Your task to perform on an android device: allow notifications from all sites in the chrome app Image 0: 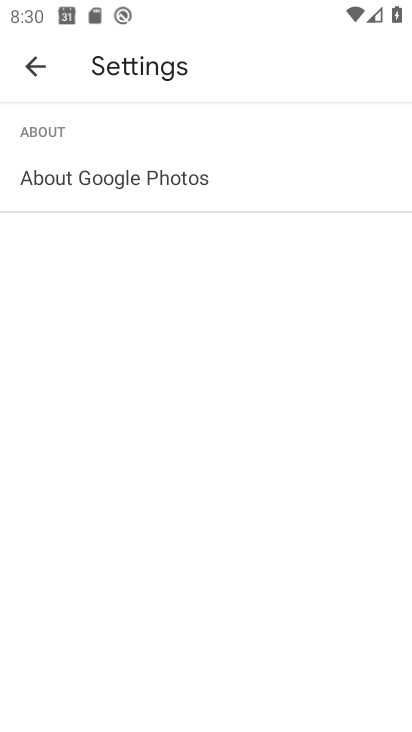
Step 0: press home button
Your task to perform on an android device: allow notifications from all sites in the chrome app Image 1: 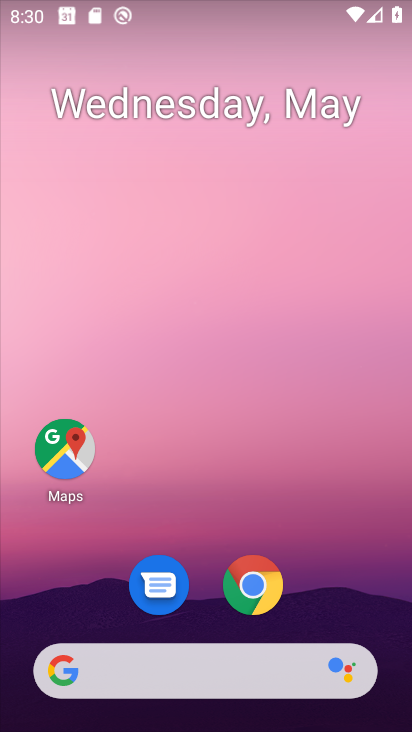
Step 1: click (259, 579)
Your task to perform on an android device: allow notifications from all sites in the chrome app Image 2: 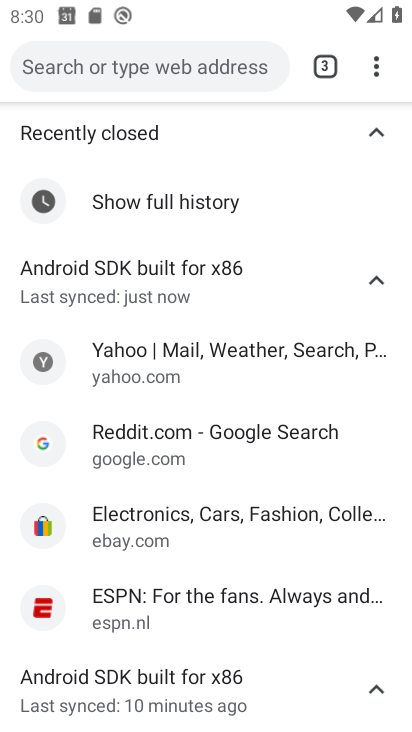
Step 2: click (371, 64)
Your task to perform on an android device: allow notifications from all sites in the chrome app Image 3: 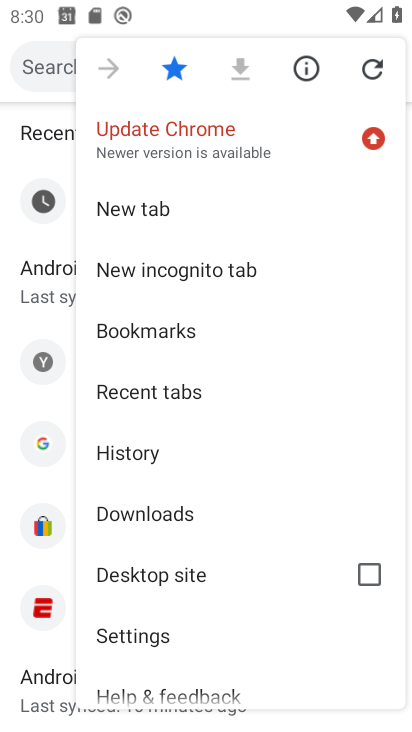
Step 3: click (256, 630)
Your task to perform on an android device: allow notifications from all sites in the chrome app Image 4: 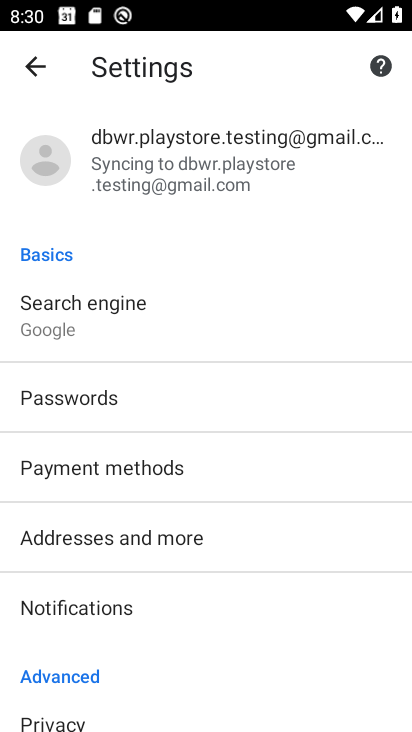
Step 4: click (208, 601)
Your task to perform on an android device: allow notifications from all sites in the chrome app Image 5: 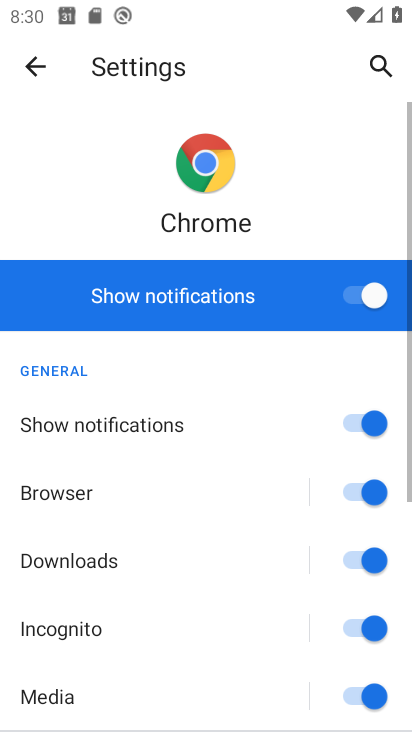
Step 5: task complete